Your task to perform on an android device: make emails show in primary in the gmail app Image 0: 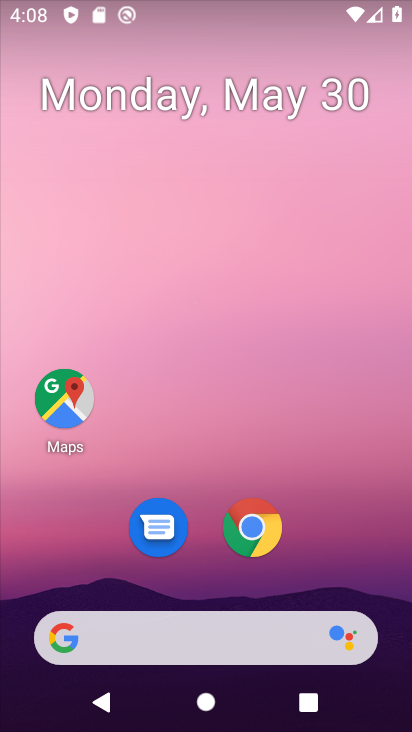
Step 0: press home button
Your task to perform on an android device: make emails show in primary in the gmail app Image 1: 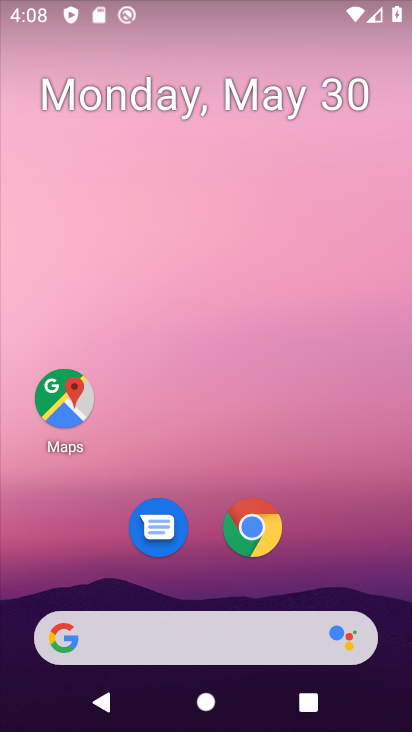
Step 1: drag from (228, 722) to (220, 97)
Your task to perform on an android device: make emails show in primary in the gmail app Image 2: 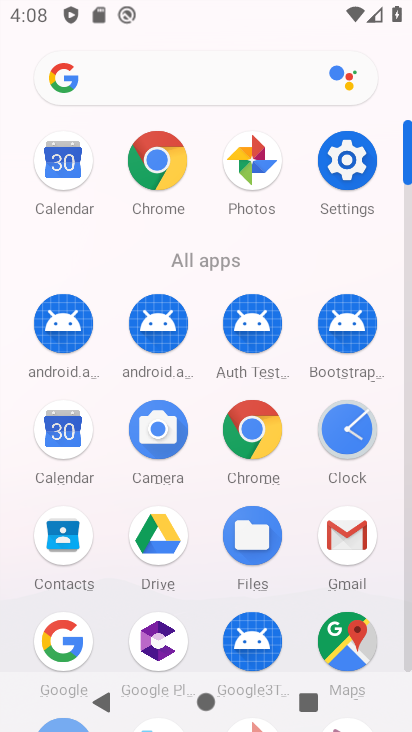
Step 2: click (341, 529)
Your task to perform on an android device: make emails show in primary in the gmail app Image 3: 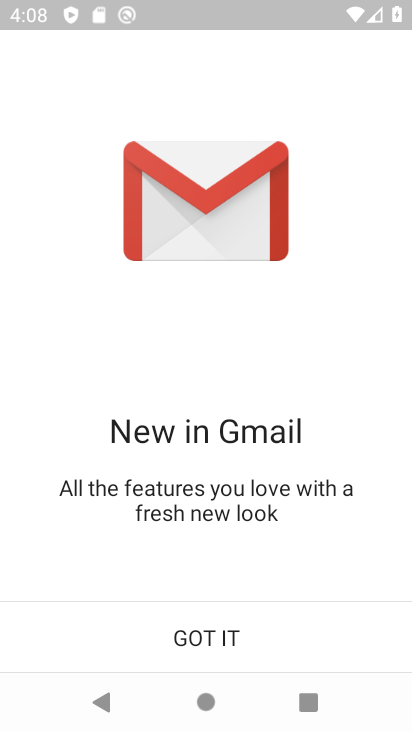
Step 3: click (196, 633)
Your task to perform on an android device: make emails show in primary in the gmail app Image 4: 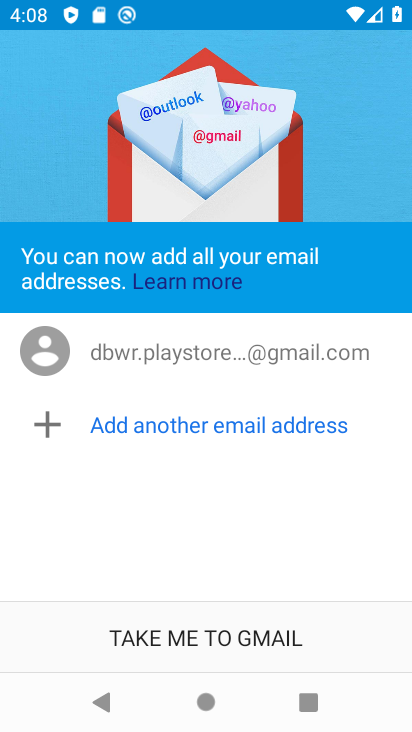
Step 4: click (197, 629)
Your task to perform on an android device: make emails show in primary in the gmail app Image 5: 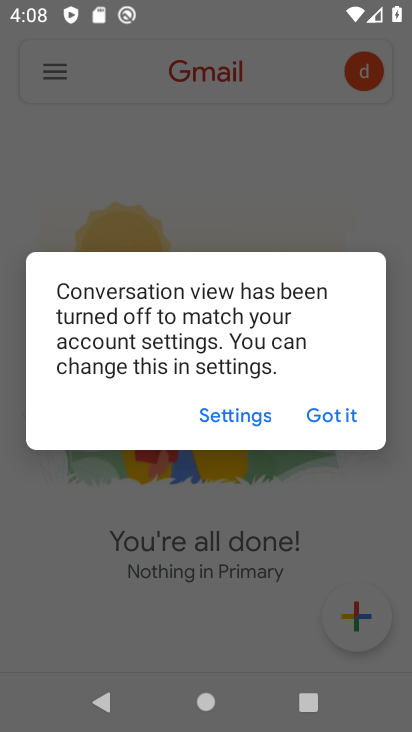
Step 5: click (341, 413)
Your task to perform on an android device: make emails show in primary in the gmail app Image 6: 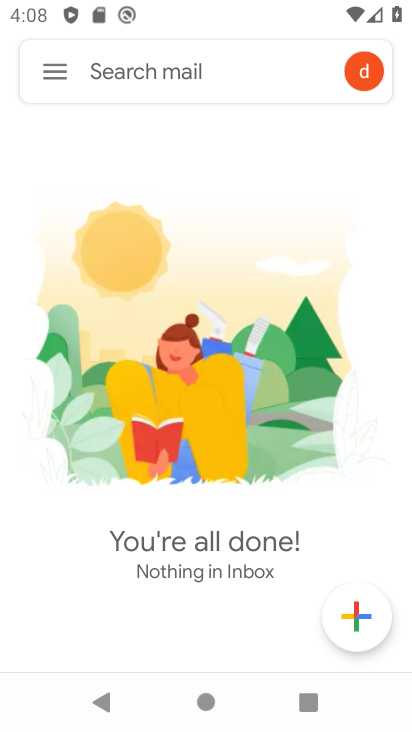
Step 6: click (56, 71)
Your task to perform on an android device: make emails show in primary in the gmail app Image 7: 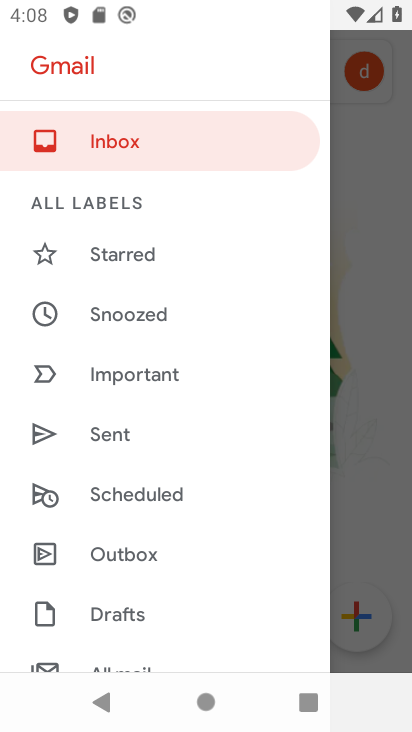
Step 7: drag from (131, 643) to (130, 197)
Your task to perform on an android device: make emails show in primary in the gmail app Image 8: 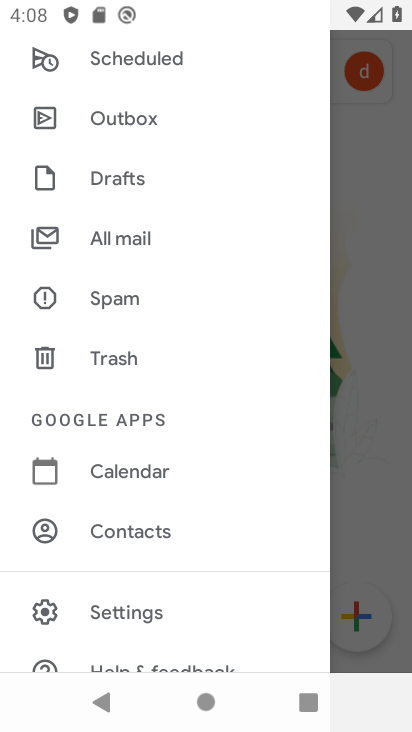
Step 8: click (134, 609)
Your task to perform on an android device: make emails show in primary in the gmail app Image 9: 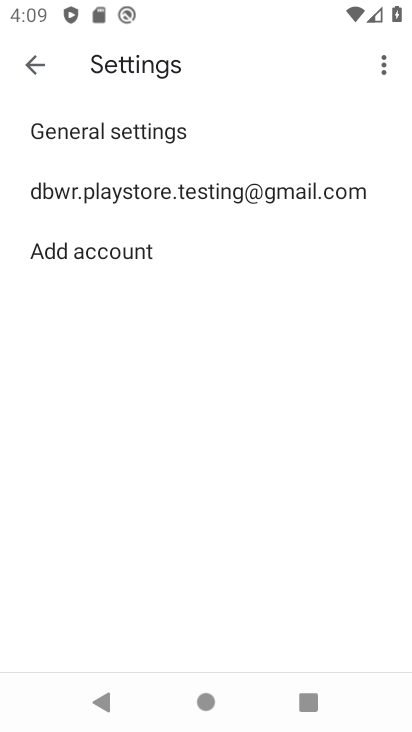
Step 9: click (176, 192)
Your task to perform on an android device: make emails show in primary in the gmail app Image 10: 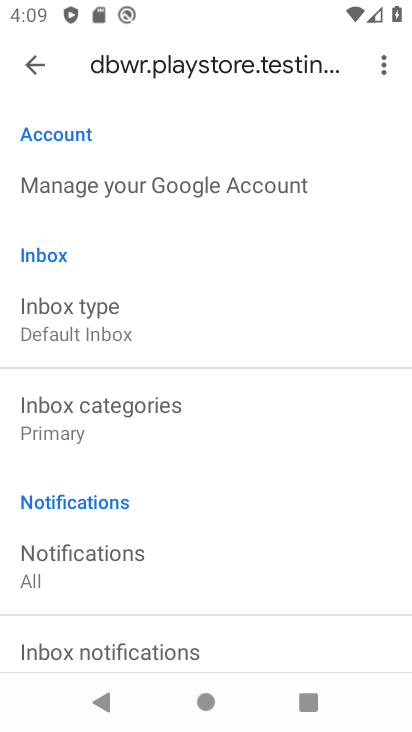
Step 10: task complete